Your task to perform on an android device: When is my next meeting? Image 0: 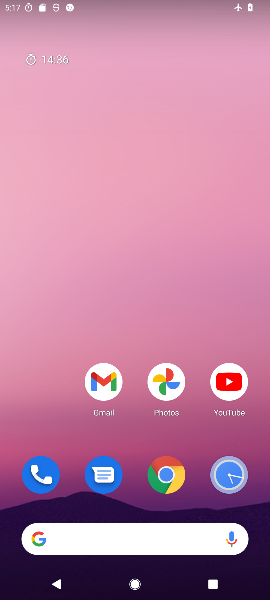
Step 0: press home button
Your task to perform on an android device: When is my next meeting? Image 1: 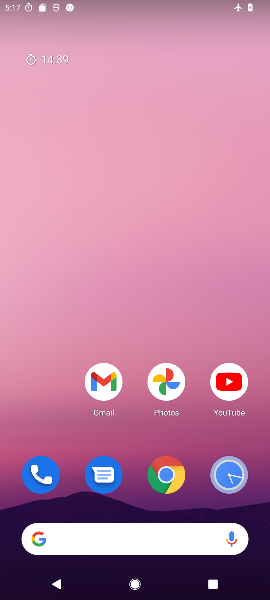
Step 1: drag from (55, 434) to (48, 184)
Your task to perform on an android device: When is my next meeting? Image 2: 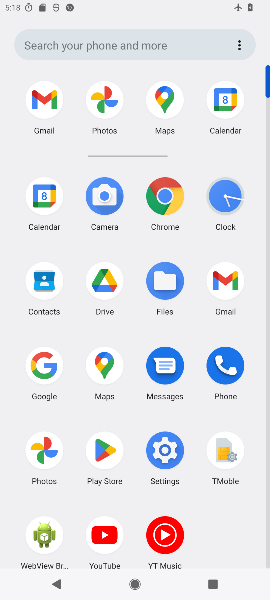
Step 2: click (46, 192)
Your task to perform on an android device: When is my next meeting? Image 3: 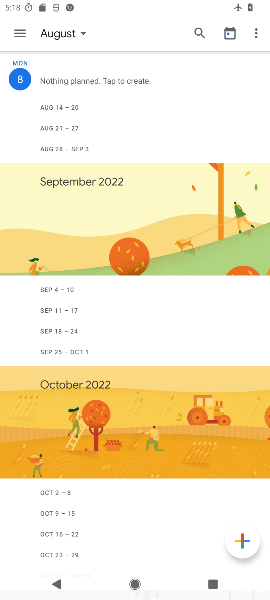
Step 3: task complete